Your task to perform on an android device: turn on sleep mode Image 0: 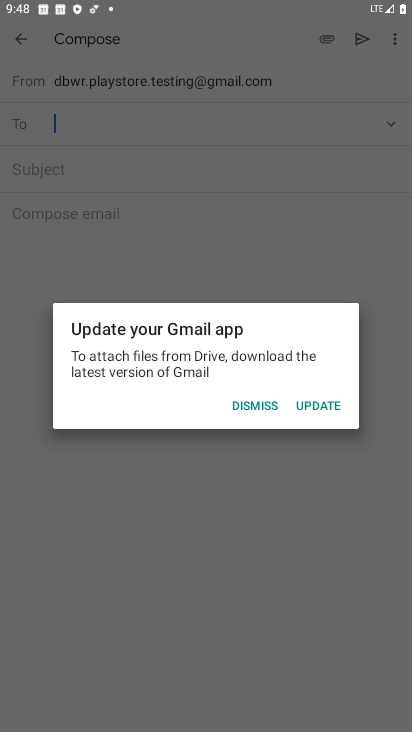
Step 0: press home button
Your task to perform on an android device: turn on sleep mode Image 1: 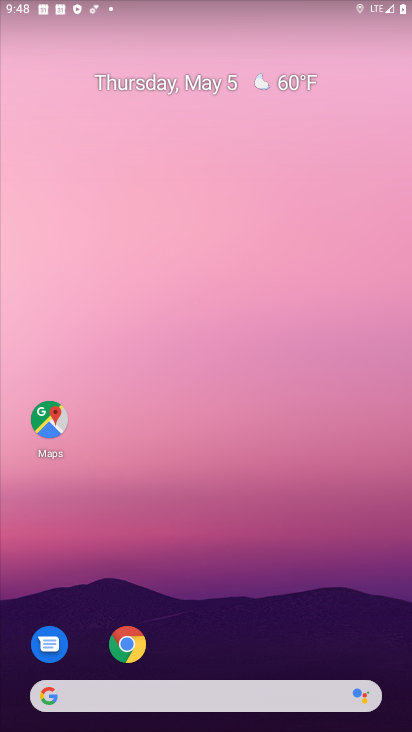
Step 1: drag from (201, 657) to (240, 189)
Your task to perform on an android device: turn on sleep mode Image 2: 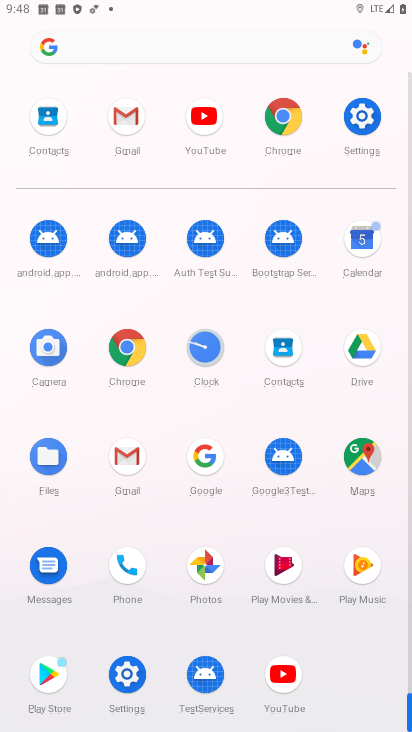
Step 2: click (363, 115)
Your task to perform on an android device: turn on sleep mode Image 3: 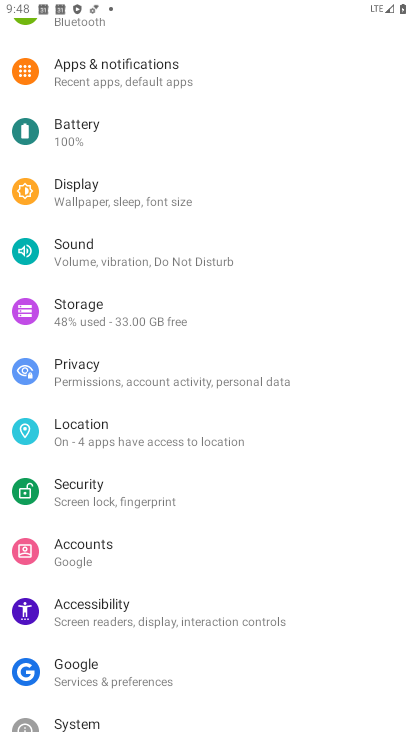
Step 3: drag from (160, 216) to (234, 600)
Your task to perform on an android device: turn on sleep mode Image 4: 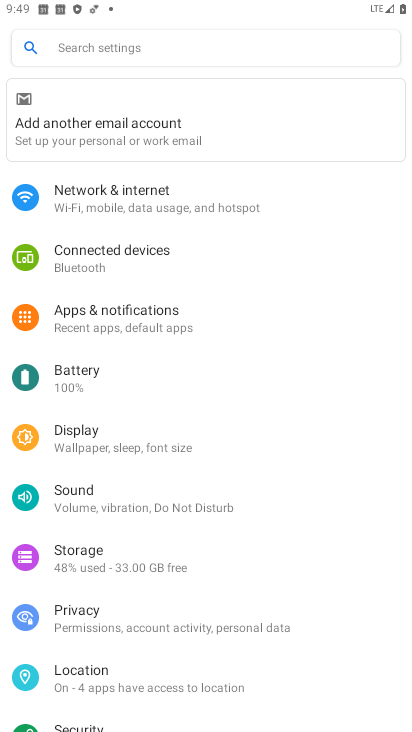
Step 4: click (226, 442)
Your task to perform on an android device: turn on sleep mode Image 5: 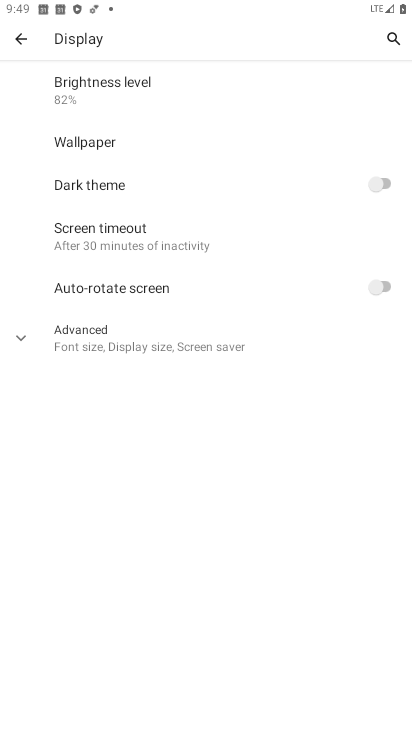
Step 5: click (201, 241)
Your task to perform on an android device: turn on sleep mode Image 6: 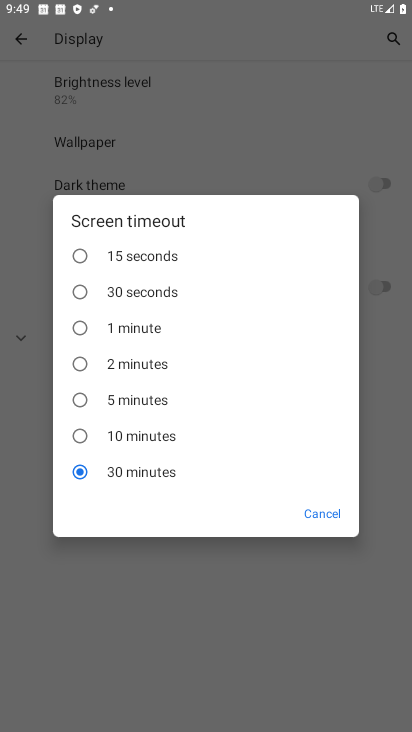
Step 6: task complete